Your task to perform on an android device: Open calendar and show me the first week of next month Image 0: 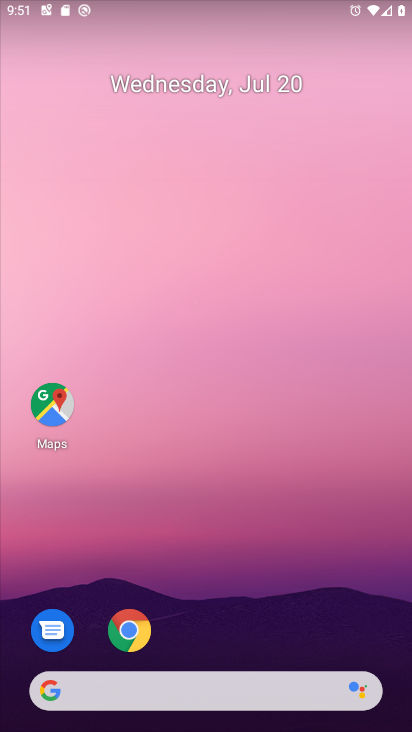
Step 0: drag from (235, 686) to (214, 211)
Your task to perform on an android device: Open calendar and show me the first week of next month Image 1: 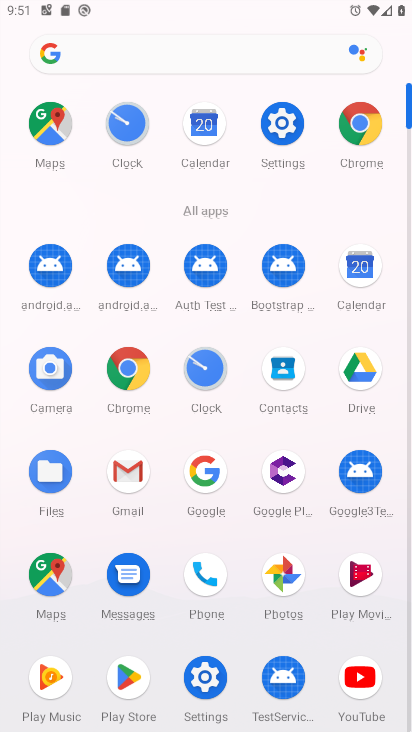
Step 1: click (364, 276)
Your task to perform on an android device: Open calendar and show me the first week of next month Image 2: 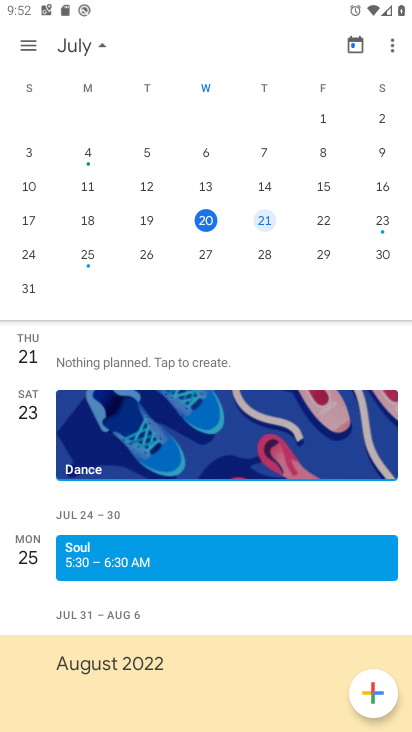
Step 2: click (26, 41)
Your task to perform on an android device: Open calendar and show me the first week of next month Image 3: 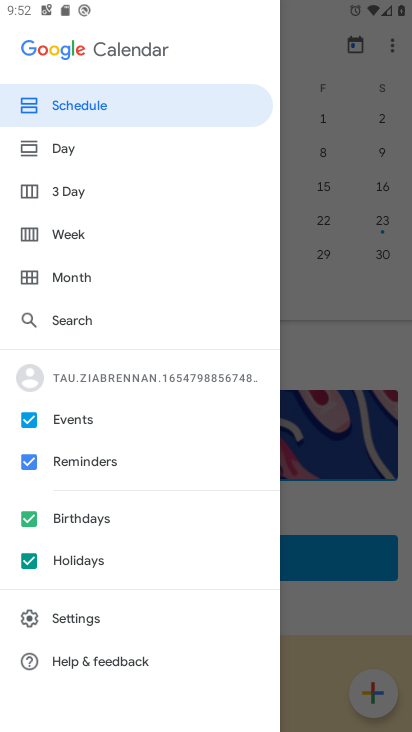
Step 3: click (90, 277)
Your task to perform on an android device: Open calendar and show me the first week of next month Image 4: 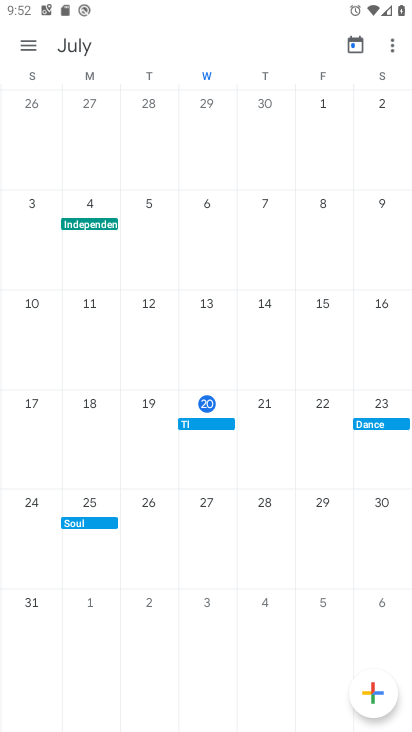
Step 4: task complete